Your task to perform on an android device: Clear the shopping cart on ebay. Add "bose soundsport free" to the cart on ebay Image 0: 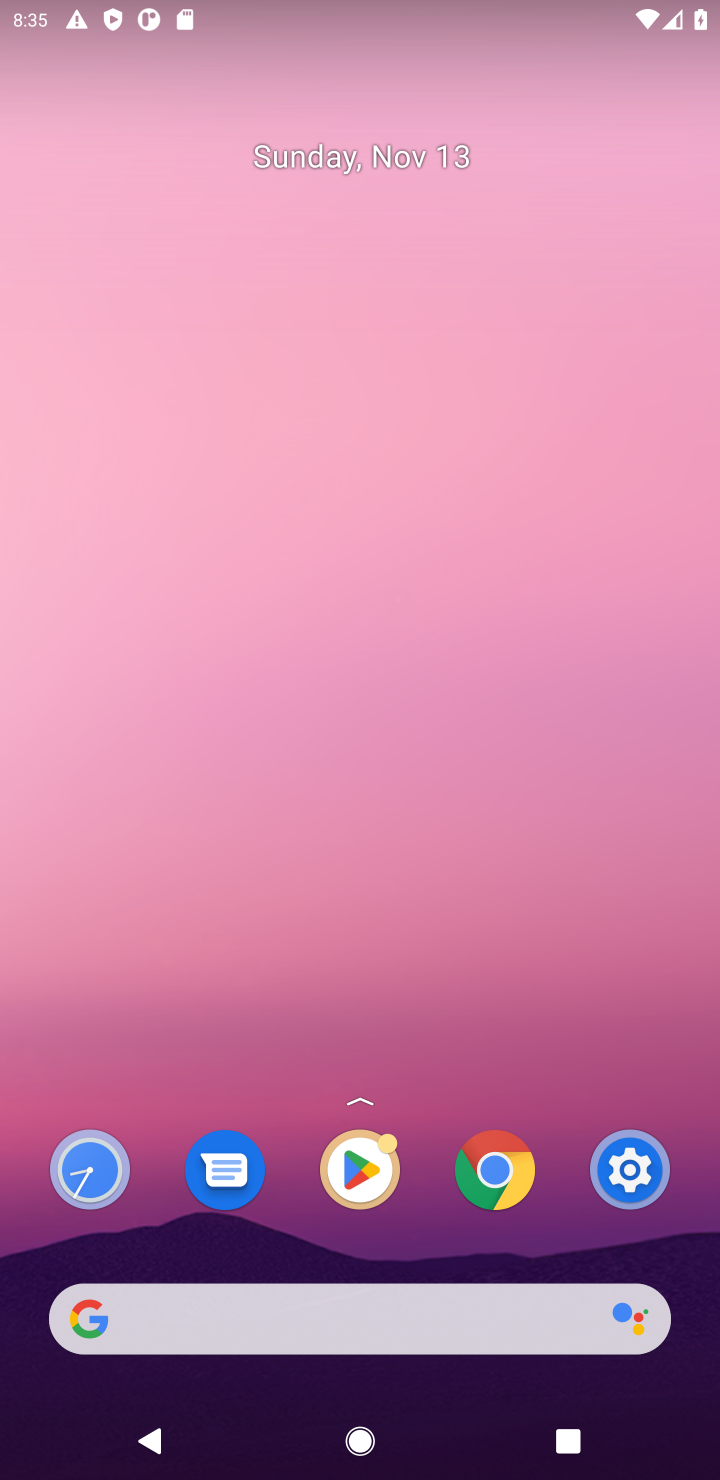
Step 0: drag from (267, 652) to (252, 412)
Your task to perform on an android device: Clear the shopping cart on ebay. Add "bose soundsport free" to the cart on ebay Image 1: 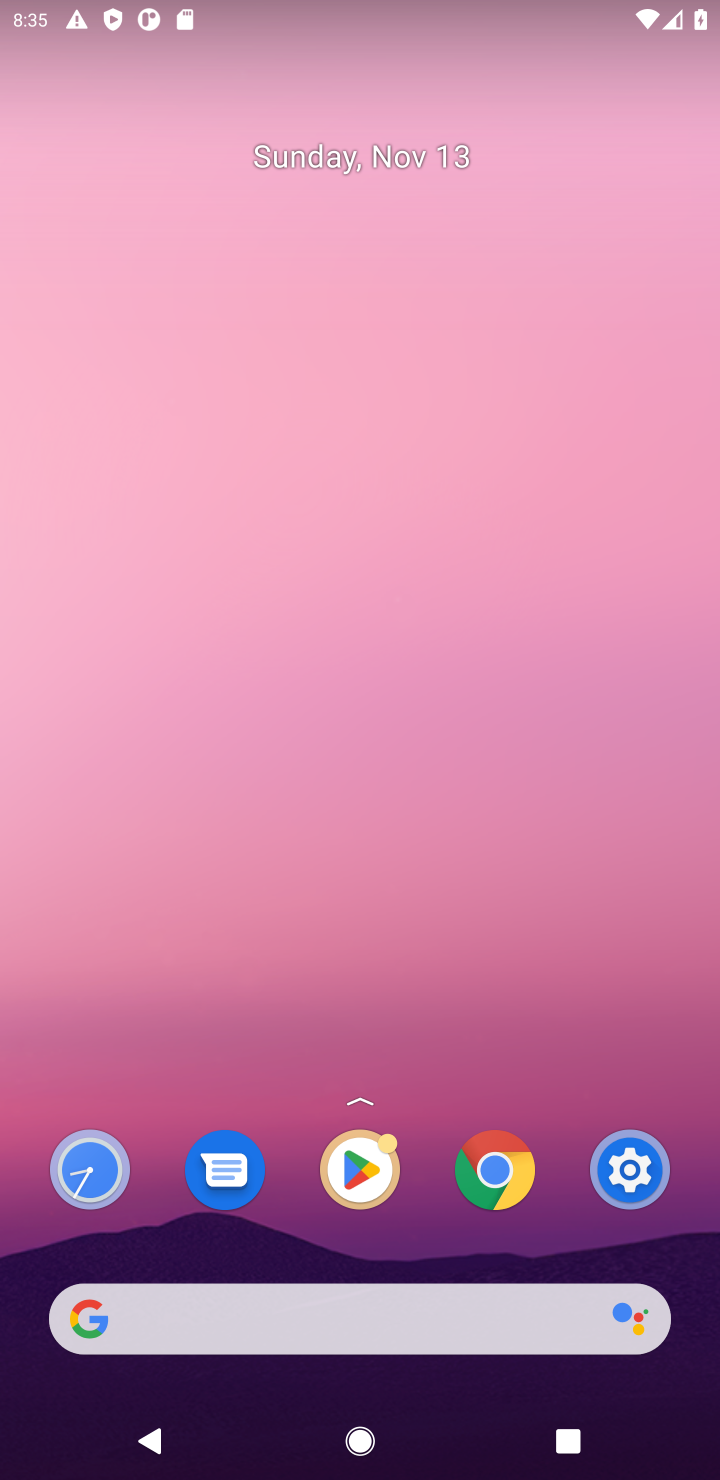
Step 1: drag from (424, 1085) to (471, 276)
Your task to perform on an android device: Clear the shopping cart on ebay. Add "bose soundsport free" to the cart on ebay Image 2: 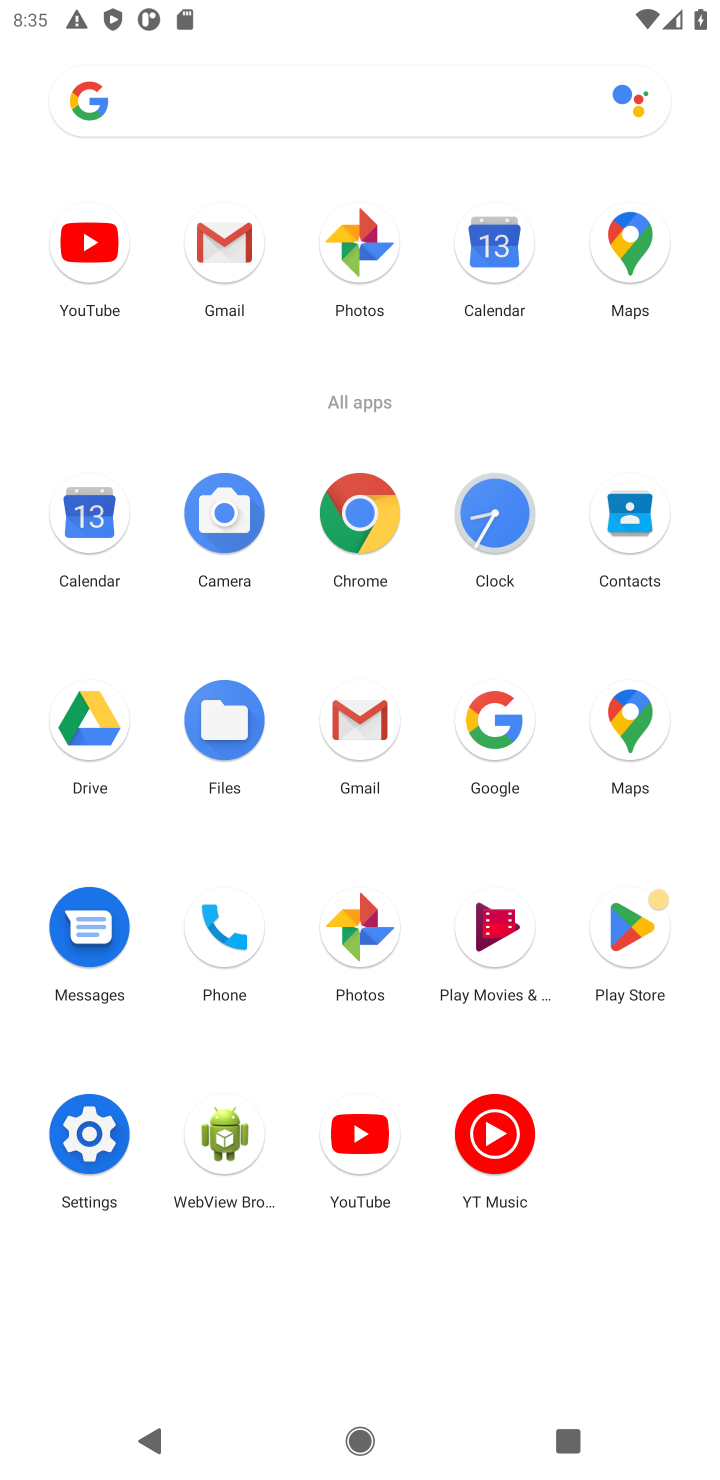
Step 2: click (374, 538)
Your task to perform on an android device: Clear the shopping cart on ebay. Add "bose soundsport free" to the cart on ebay Image 3: 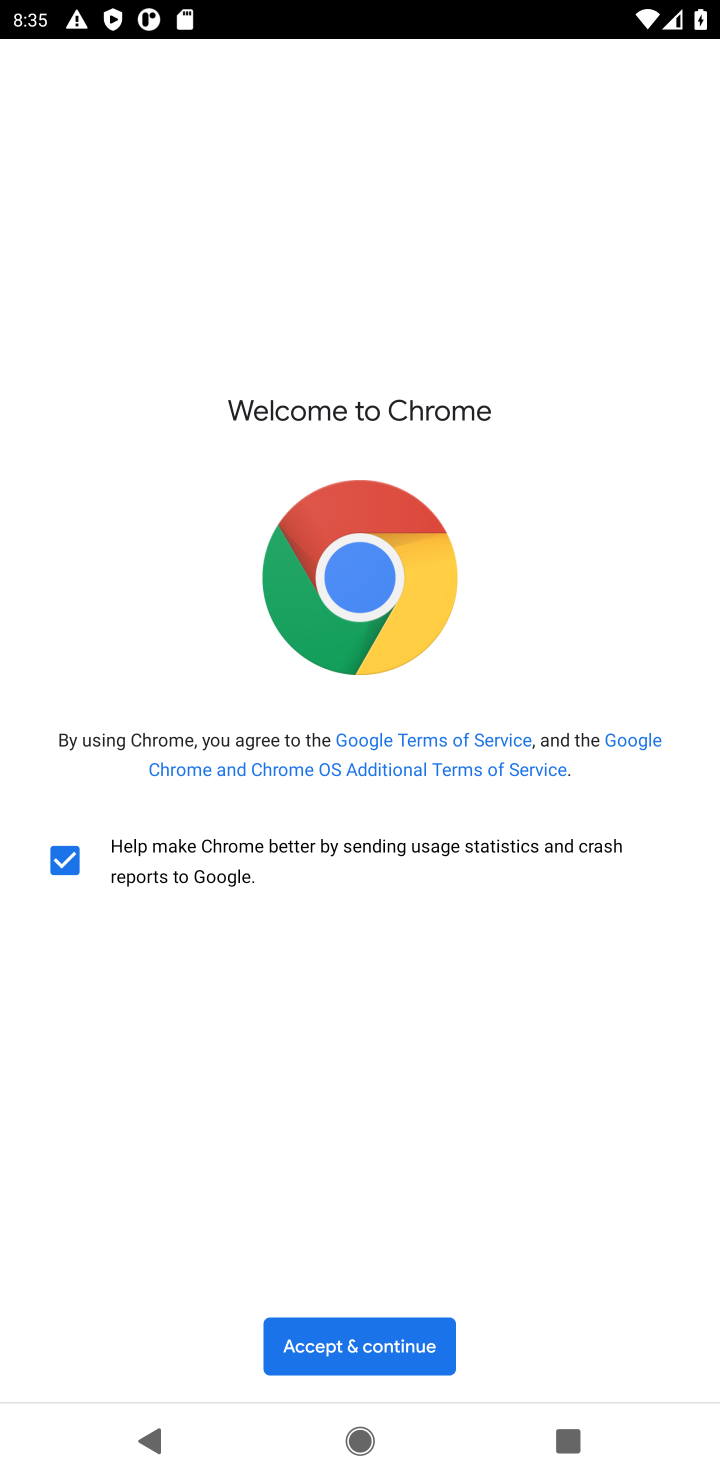
Step 3: click (373, 1342)
Your task to perform on an android device: Clear the shopping cart on ebay. Add "bose soundsport free" to the cart on ebay Image 4: 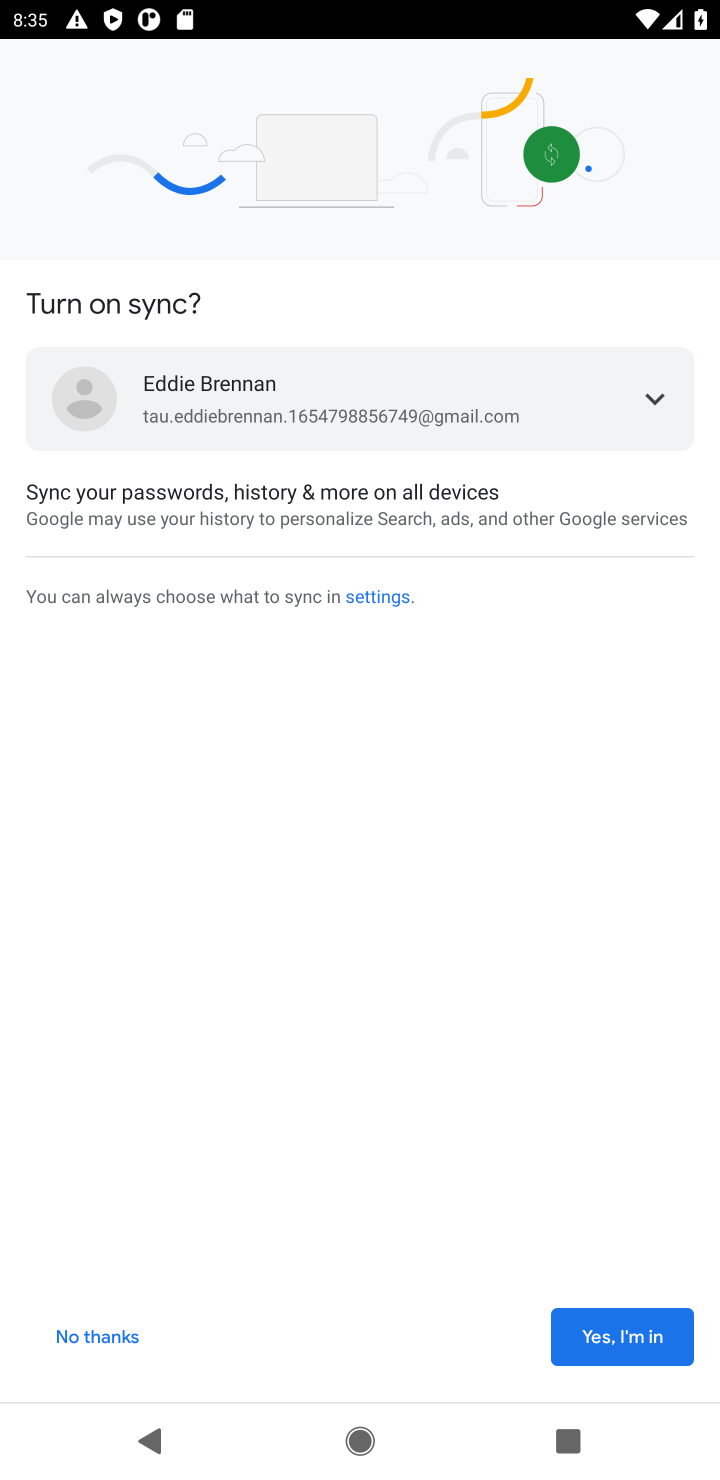
Step 4: click (612, 1321)
Your task to perform on an android device: Clear the shopping cart on ebay. Add "bose soundsport free" to the cart on ebay Image 5: 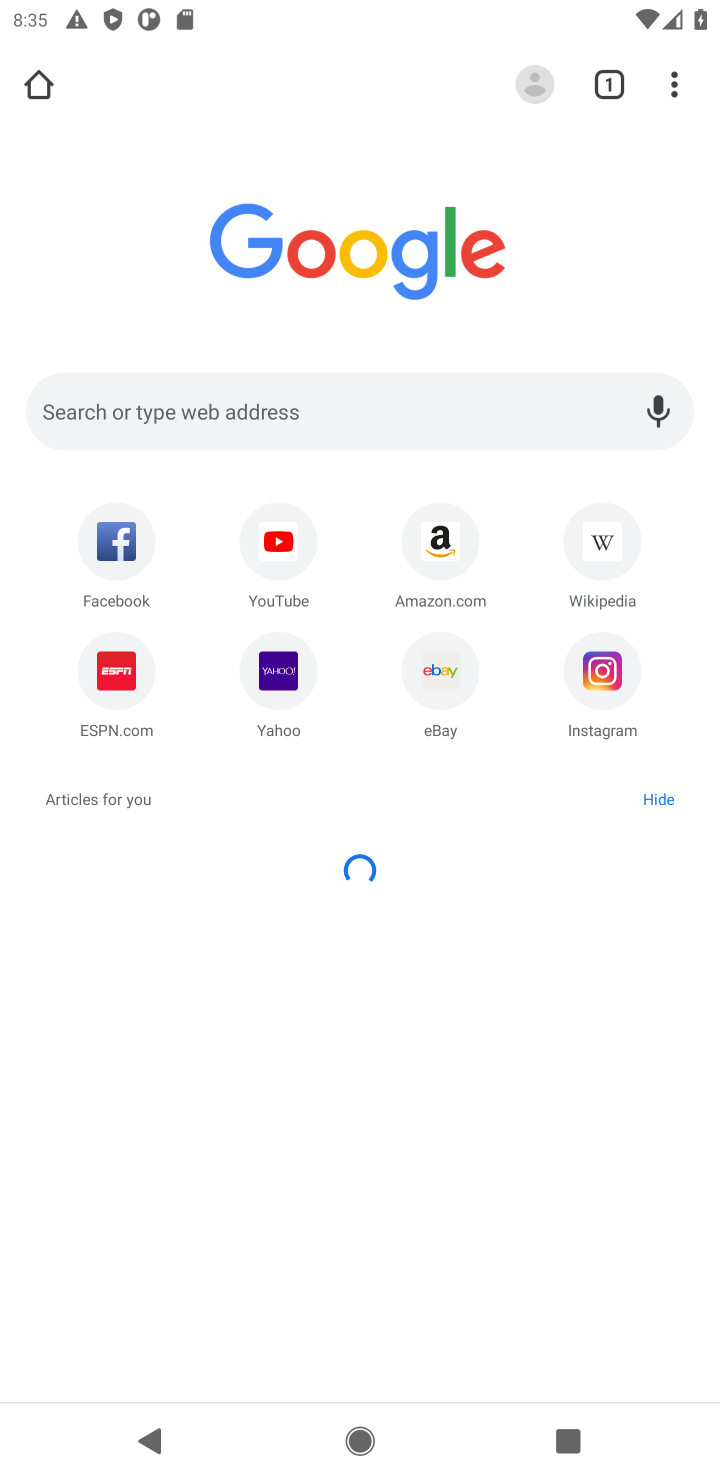
Step 5: click (268, 406)
Your task to perform on an android device: Clear the shopping cart on ebay. Add "bose soundsport free" to the cart on ebay Image 6: 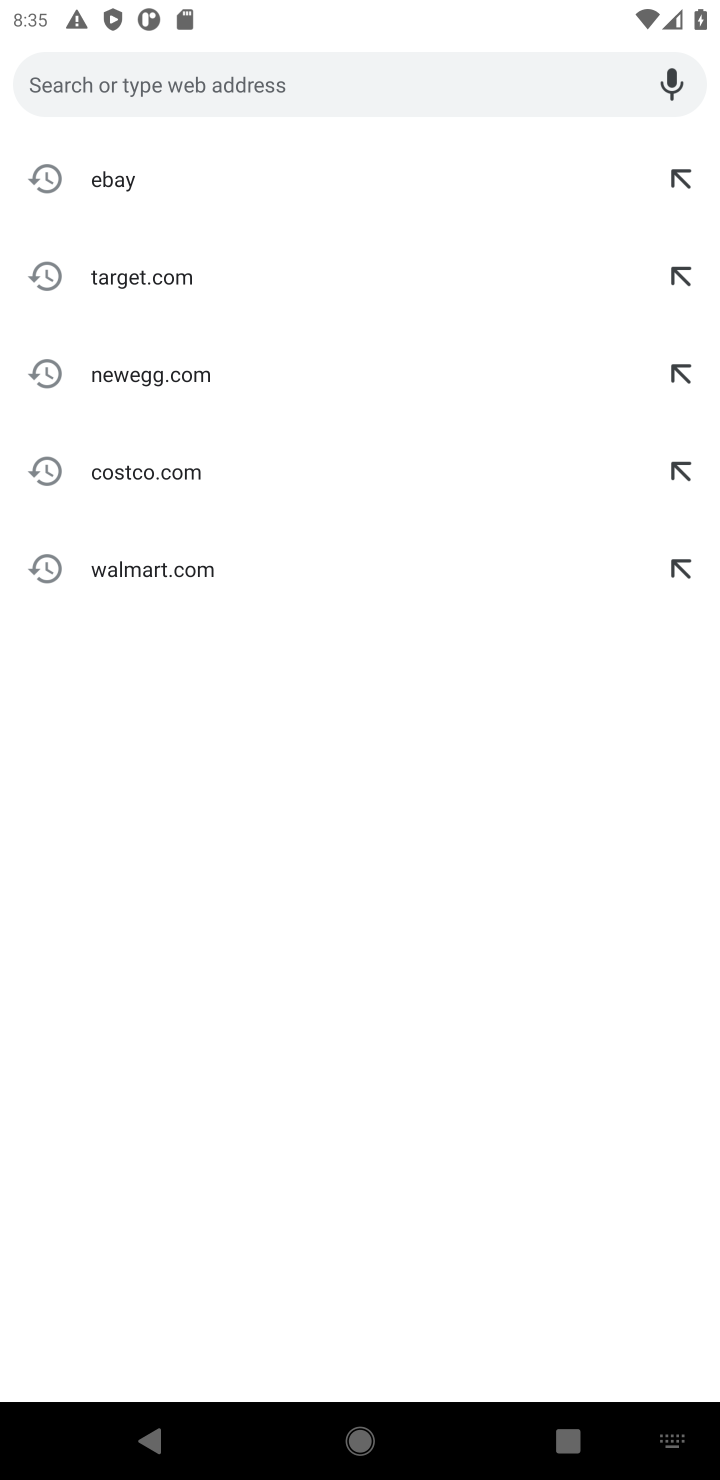
Step 6: type "ebay"
Your task to perform on an android device: Clear the shopping cart on ebay. Add "bose soundsport free" to the cart on ebay Image 7: 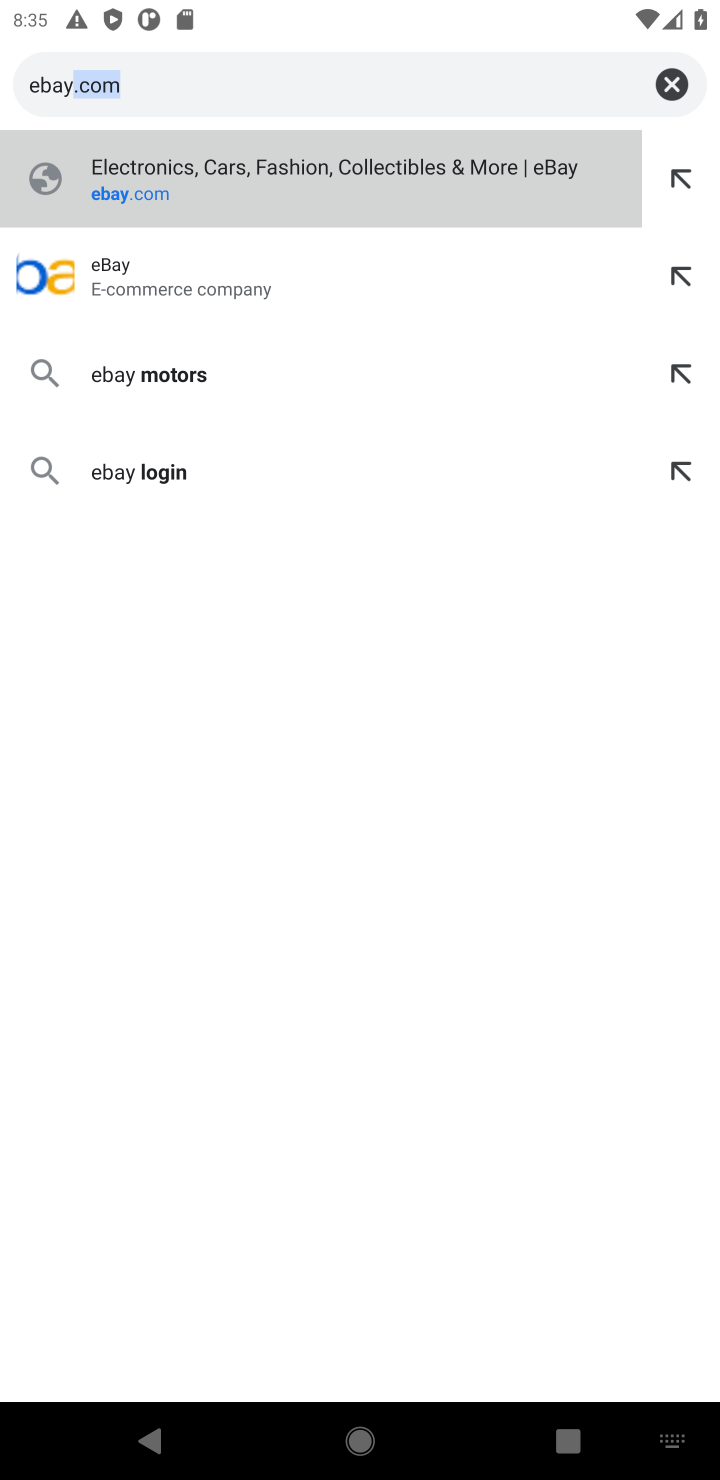
Step 7: press enter
Your task to perform on an android device: Clear the shopping cart on ebay. Add "bose soundsport free" to the cart on ebay Image 8: 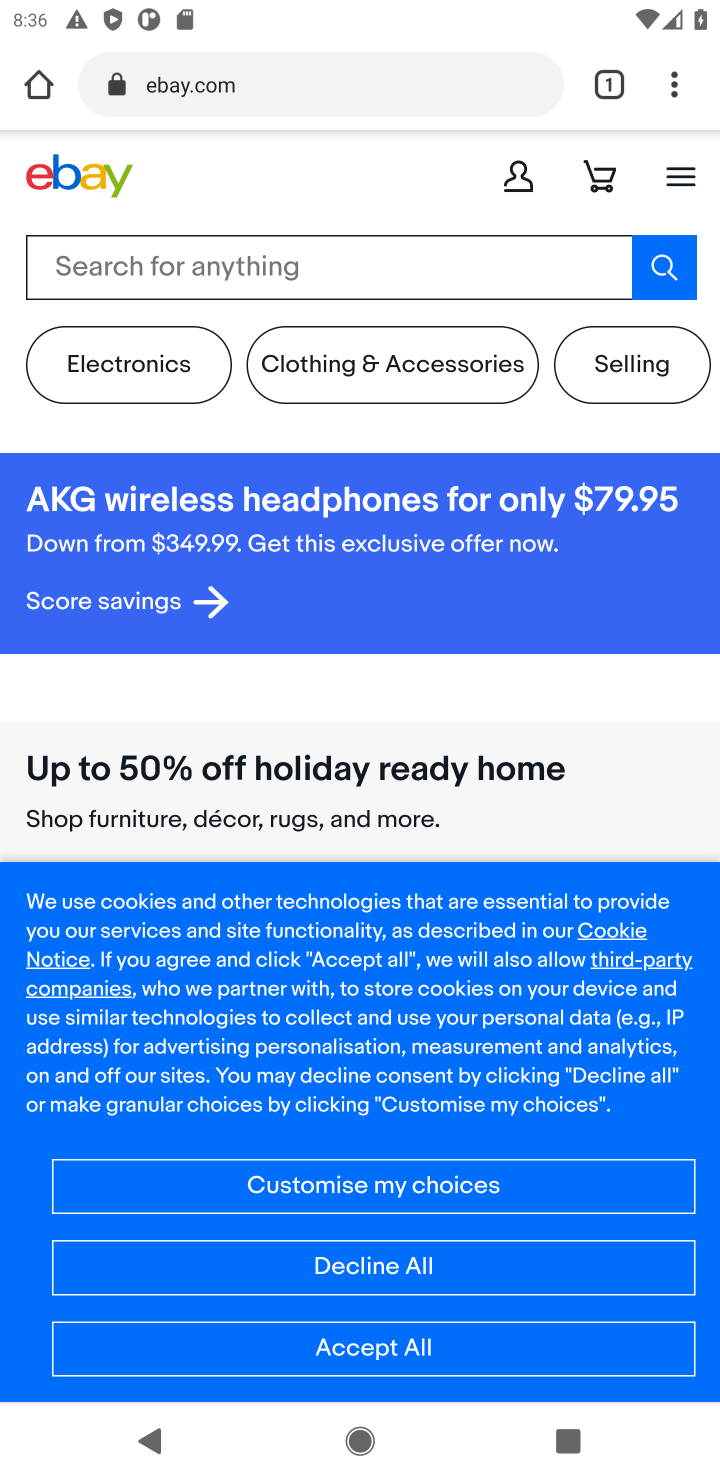
Step 8: click (158, 264)
Your task to perform on an android device: Clear the shopping cart on ebay. Add "bose soundsport free" to the cart on ebay Image 9: 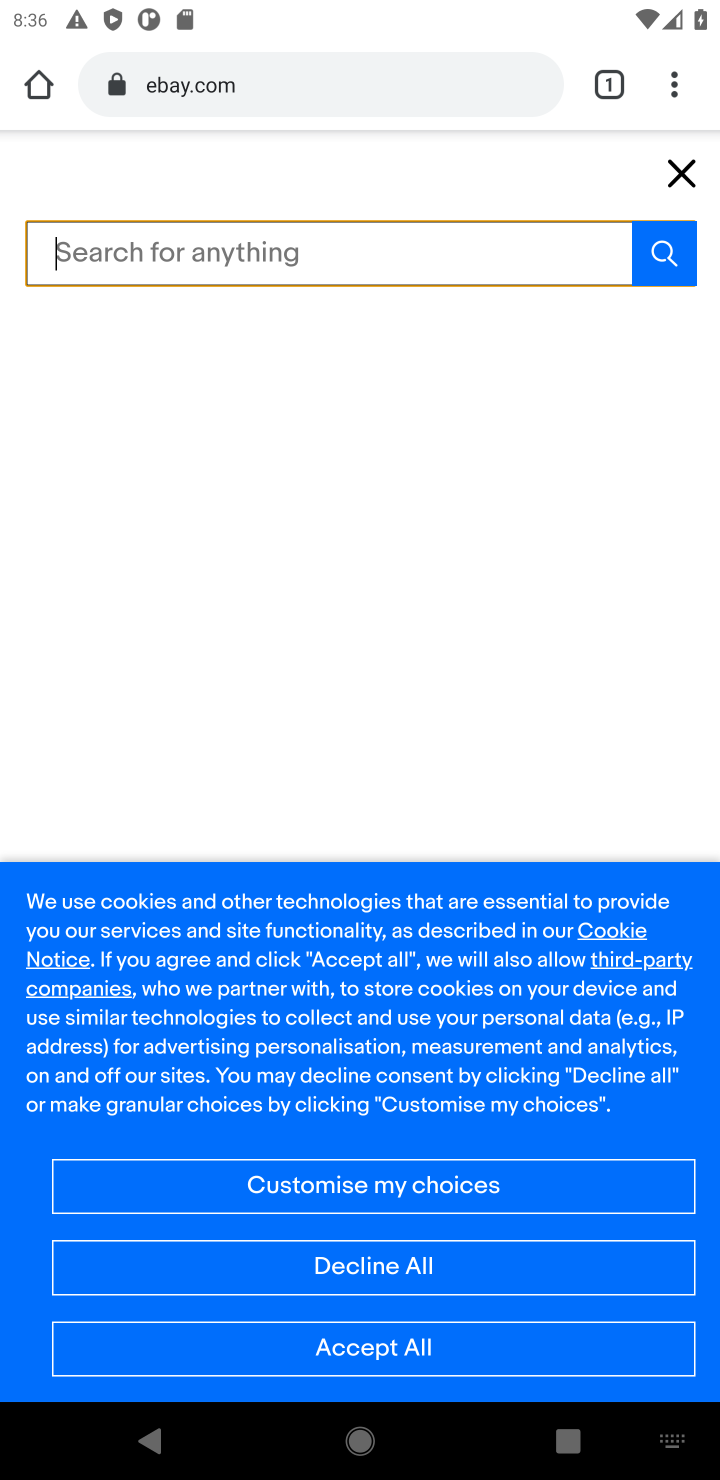
Step 9: press enter
Your task to perform on an android device: Clear the shopping cart on ebay. Add "bose soundsport free" to the cart on ebay Image 10: 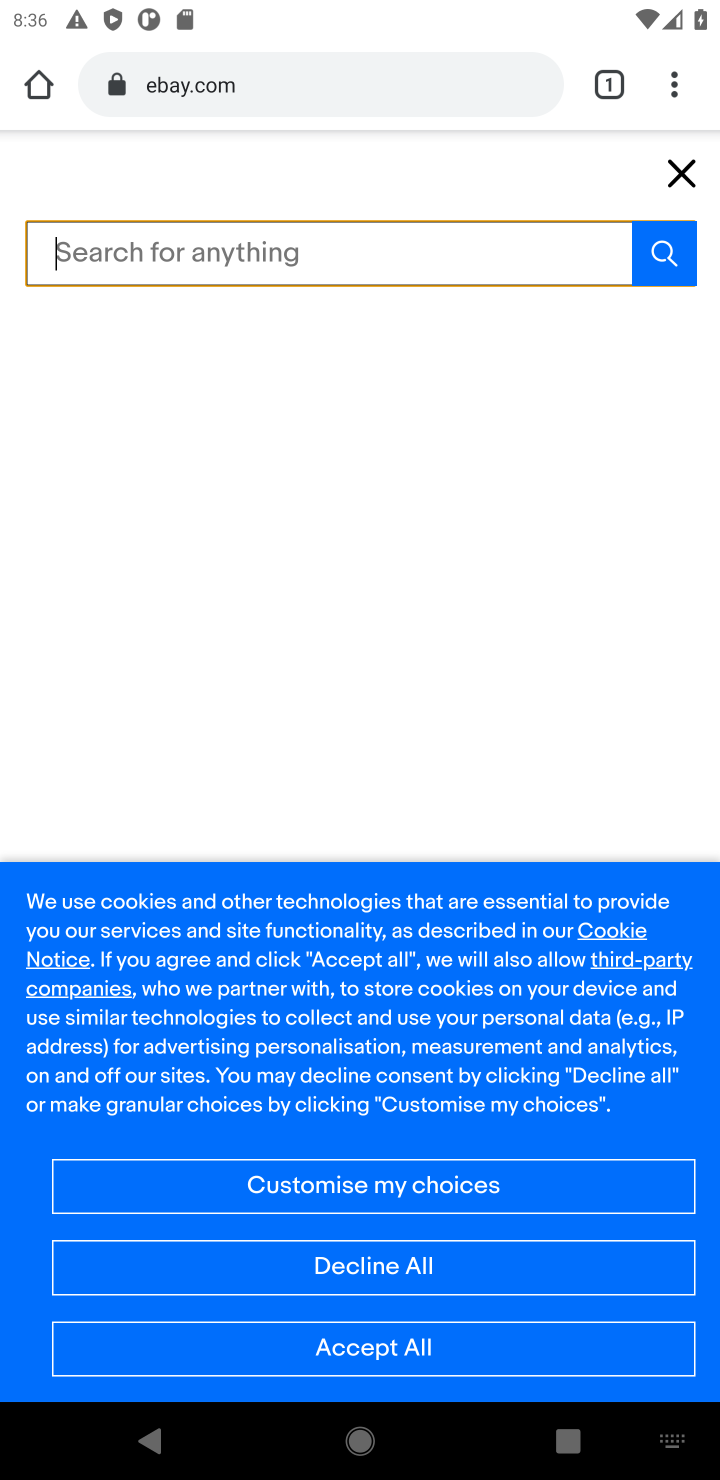
Step 10: type "bose soundsport free"
Your task to perform on an android device: Clear the shopping cart on ebay. Add "bose soundsport free" to the cart on ebay Image 11: 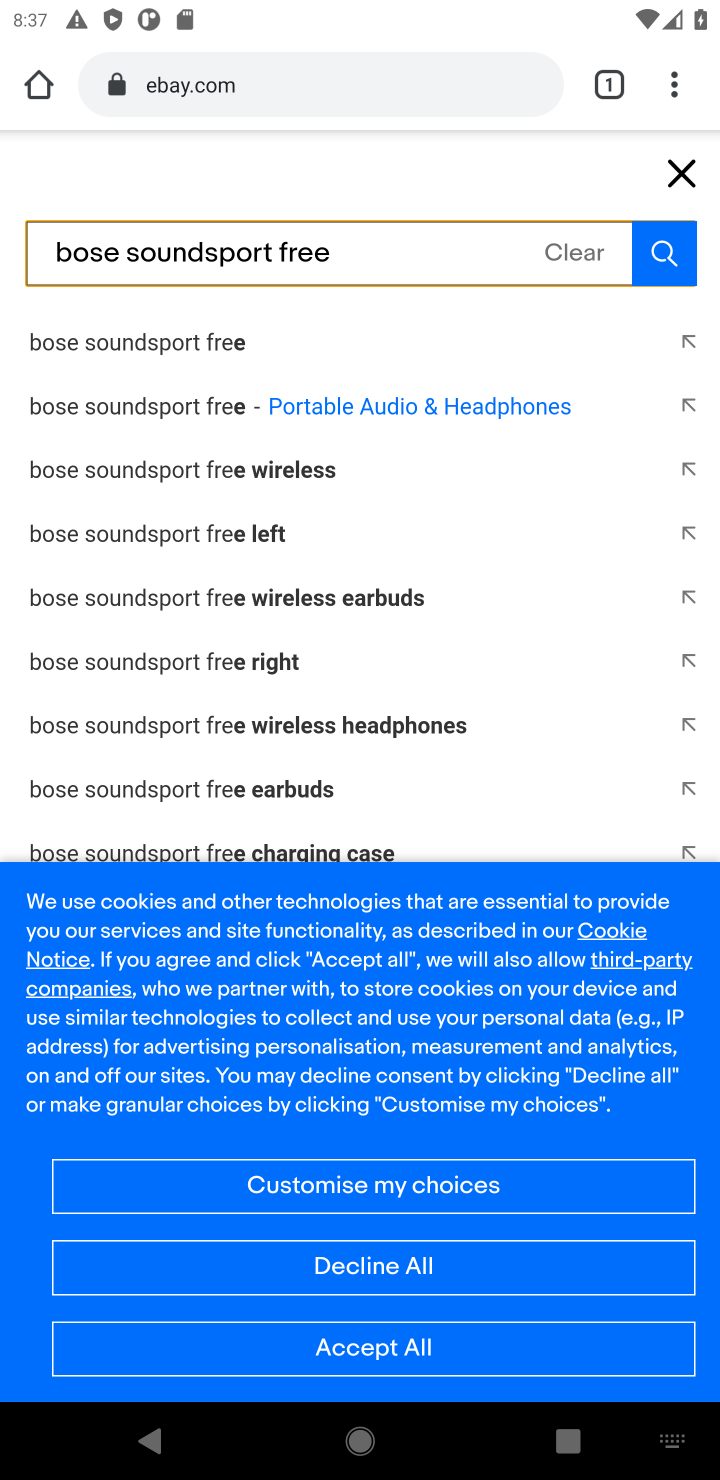
Step 11: press enter
Your task to perform on an android device: Clear the shopping cart on ebay. Add "bose soundsport free" to the cart on ebay Image 12: 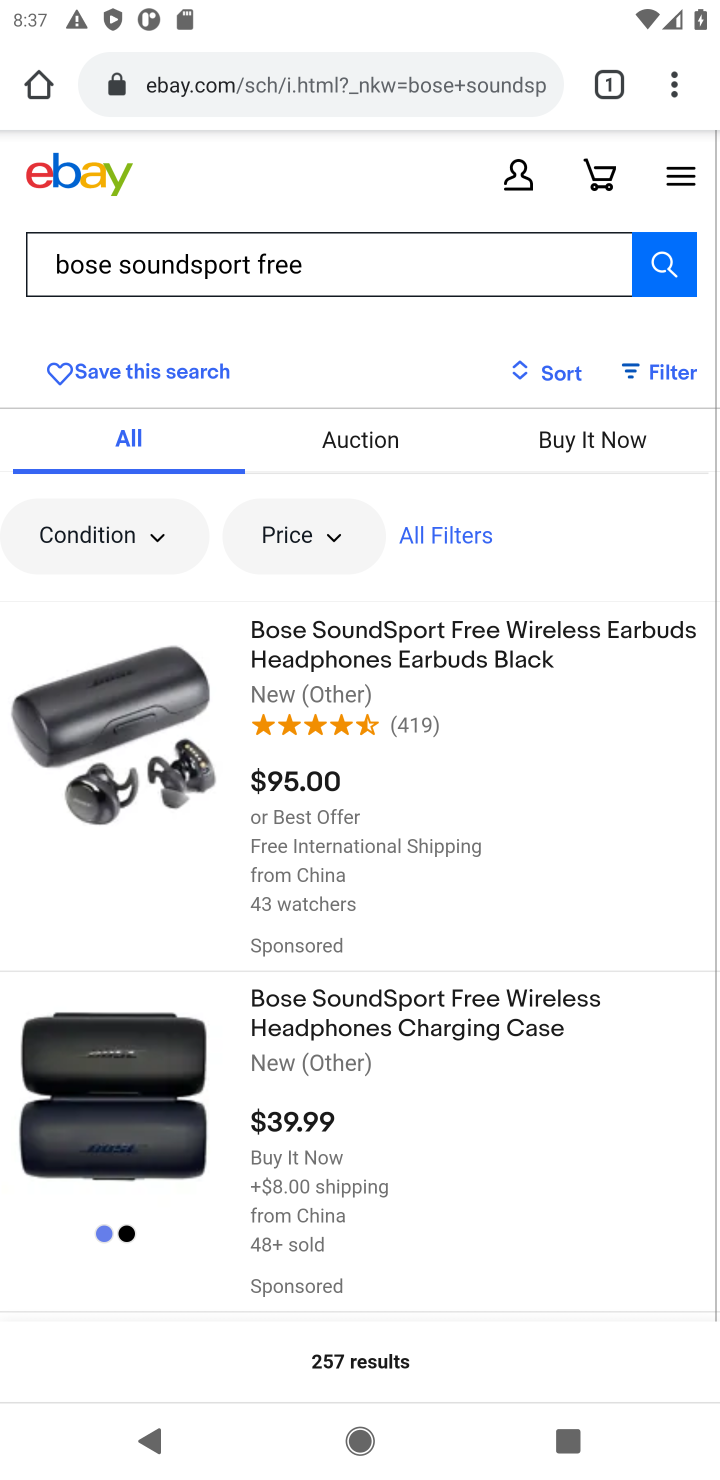
Step 12: click (326, 662)
Your task to perform on an android device: Clear the shopping cart on ebay. Add "bose soundsport free" to the cart on ebay Image 13: 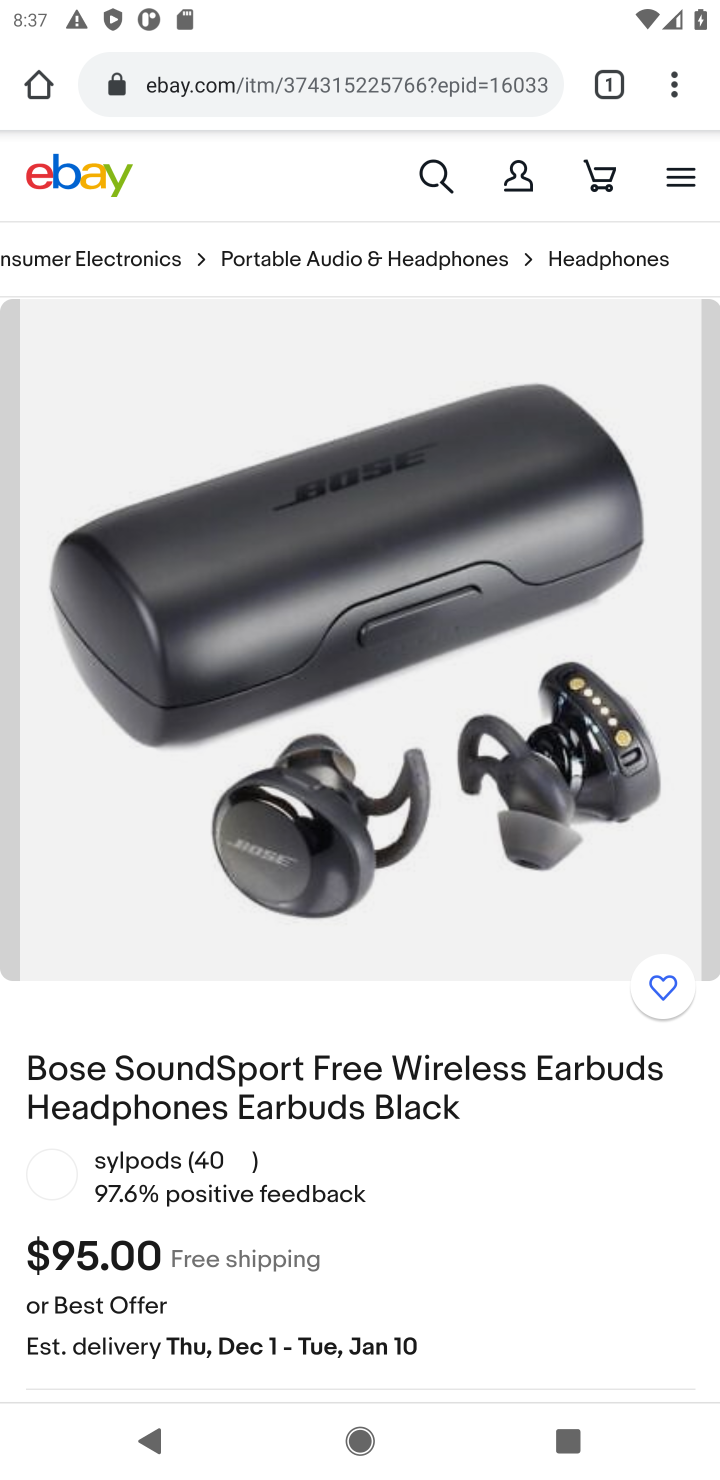
Step 13: click (496, 614)
Your task to perform on an android device: Clear the shopping cart on ebay. Add "bose soundsport free" to the cart on ebay Image 14: 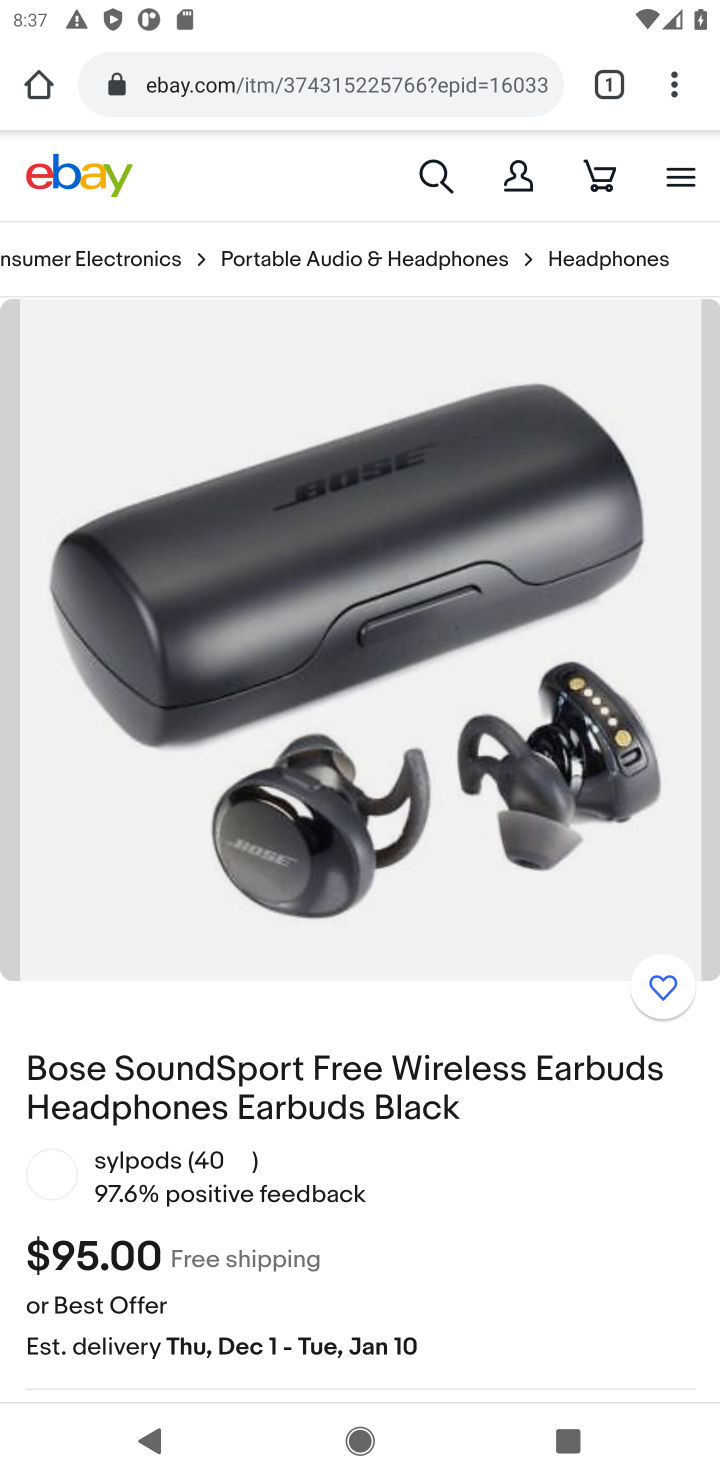
Step 14: click (367, 521)
Your task to perform on an android device: Clear the shopping cart on ebay. Add "bose soundsport free" to the cart on ebay Image 15: 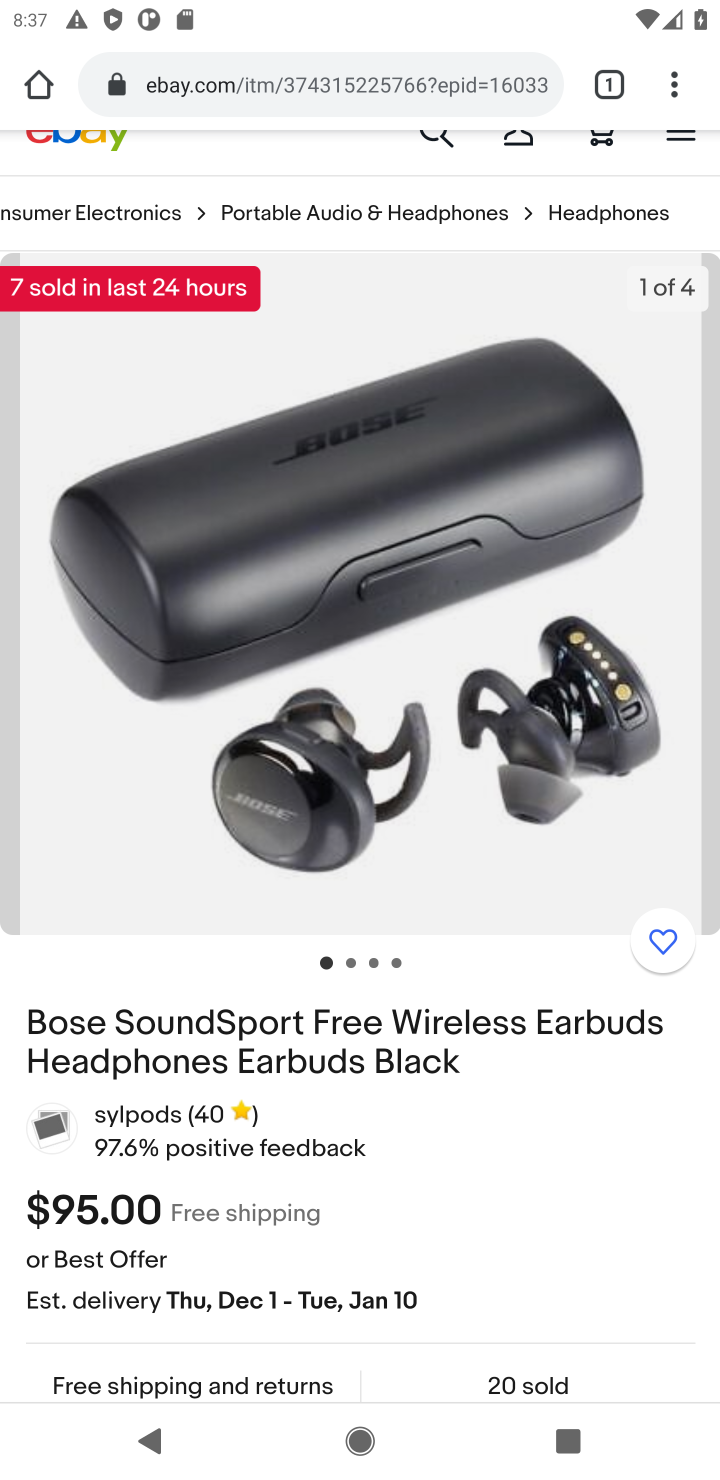
Step 15: drag from (412, 827) to (485, 555)
Your task to perform on an android device: Clear the shopping cart on ebay. Add "bose soundsport free" to the cart on ebay Image 16: 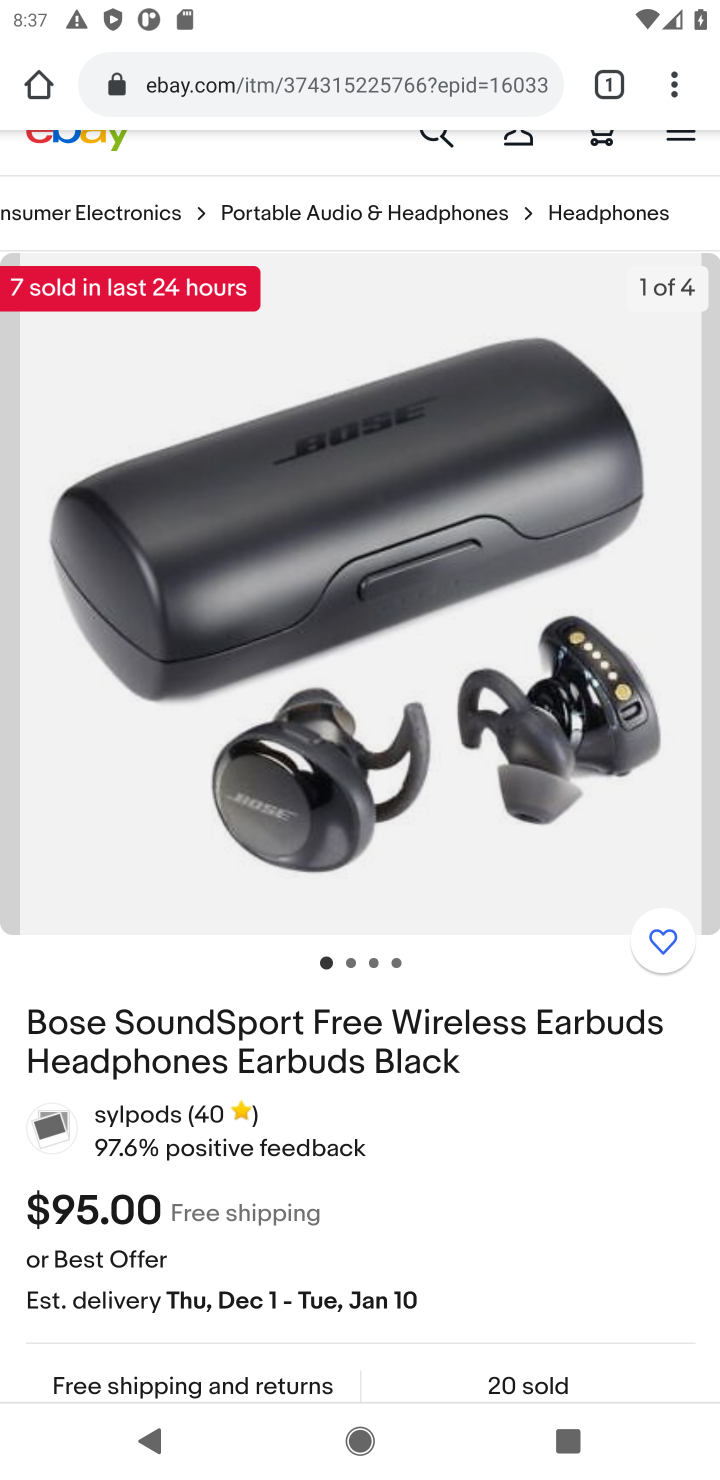
Step 16: drag from (348, 1106) to (449, 497)
Your task to perform on an android device: Clear the shopping cart on ebay. Add "bose soundsport free" to the cart on ebay Image 17: 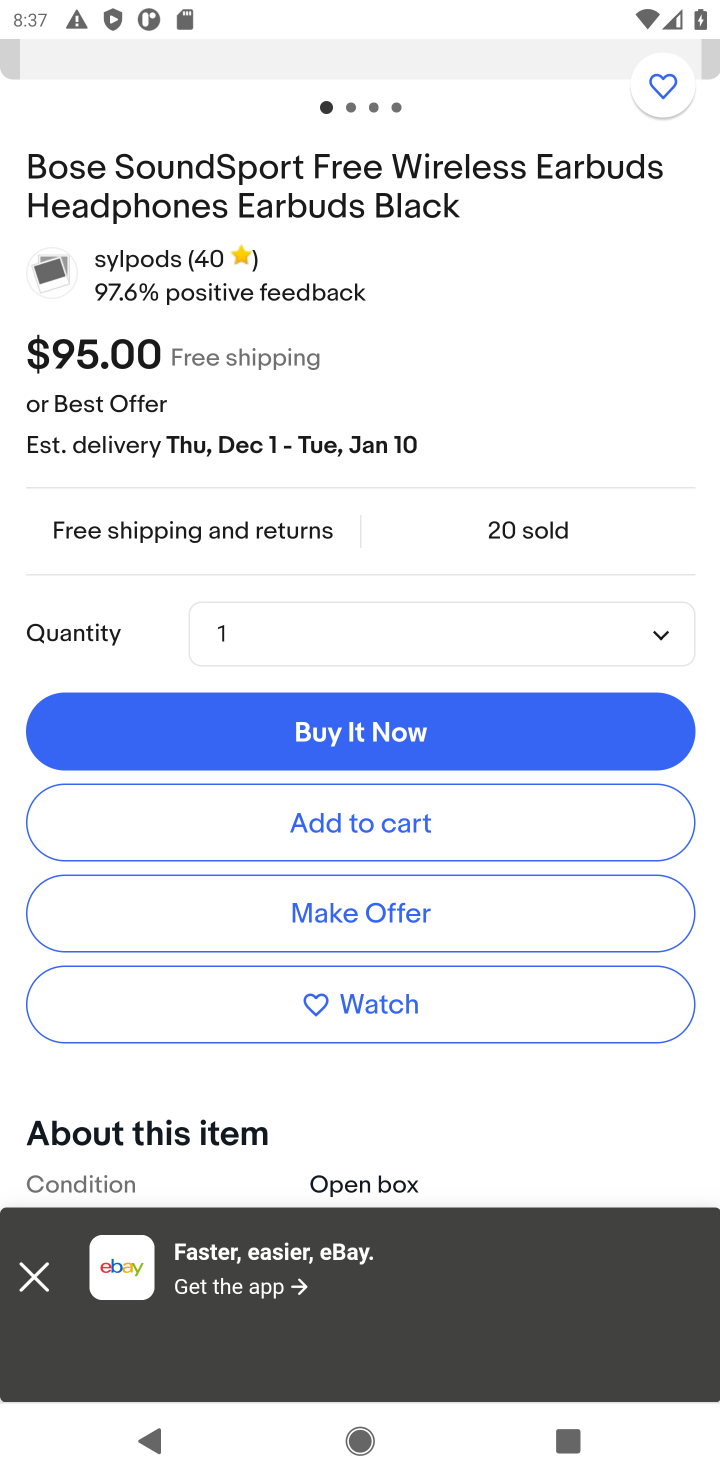
Step 17: drag from (341, 1117) to (437, 543)
Your task to perform on an android device: Clear the shopping cart on ebay. Add "bose soundsport free" to the cart on ebay Image 18: 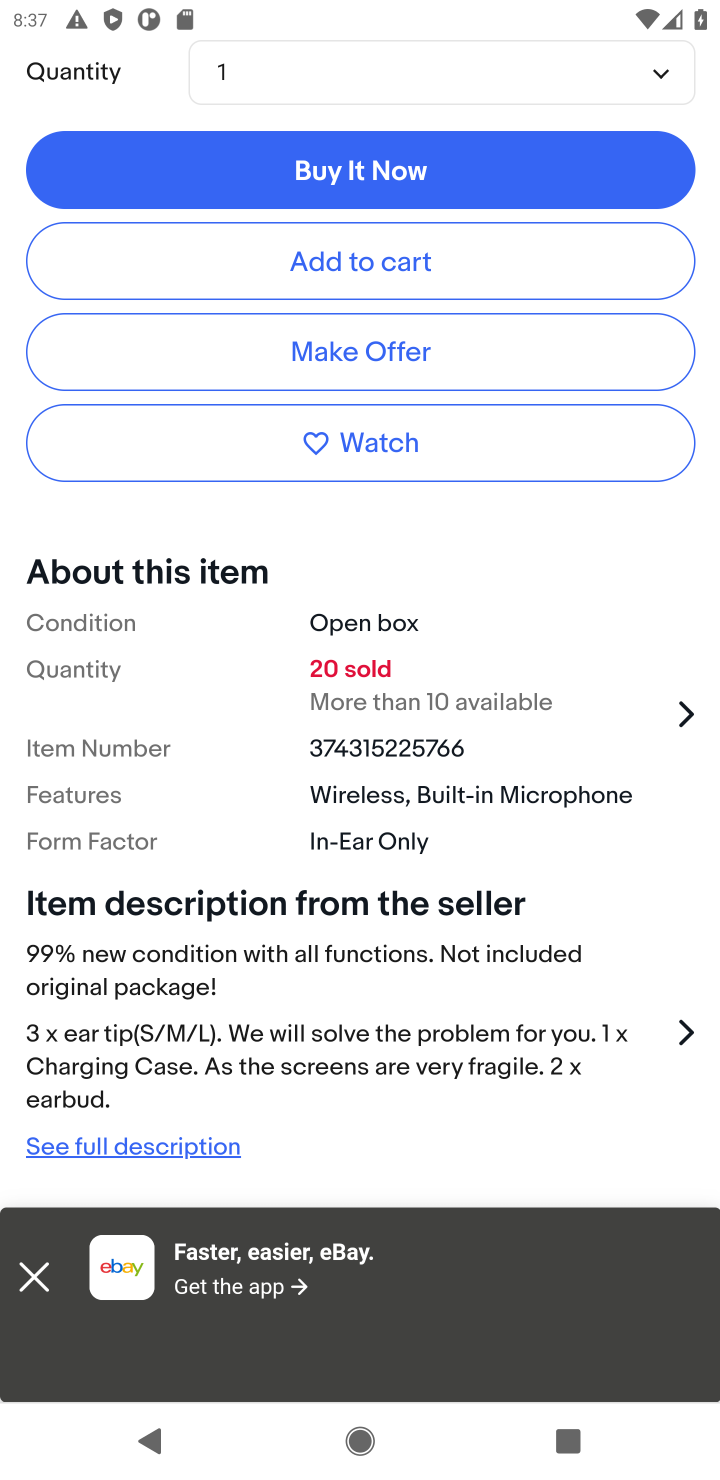
Step 18: click (431, 268)
Your task to perform on an android device: Clear the shopping cart on ebay. Add "bose soundsport free" to the cart on ebay Image 19: 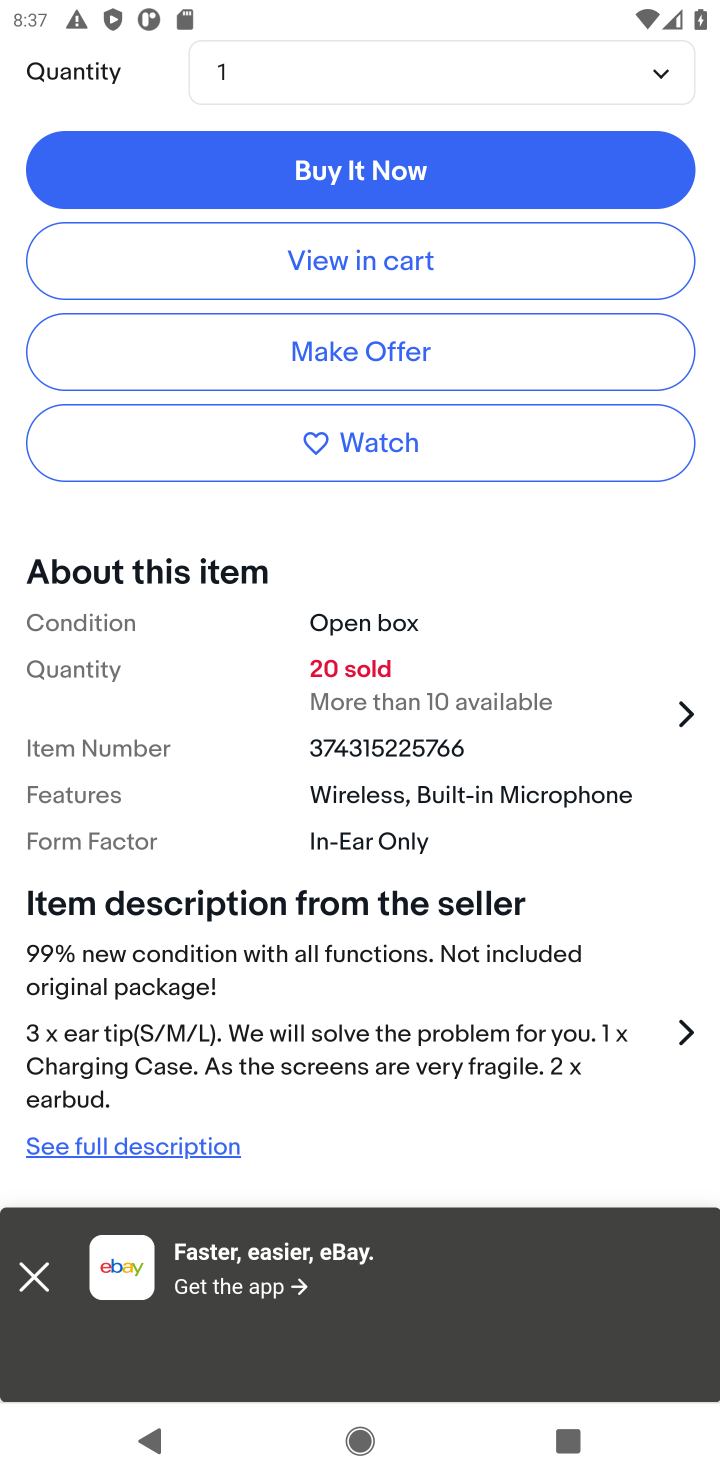
Step 19: click (414, 268)
Your task to perform on an android device: Clear the shopping cart on ebay. Add "bose soundsport free" to the cart on ebay Image 20: 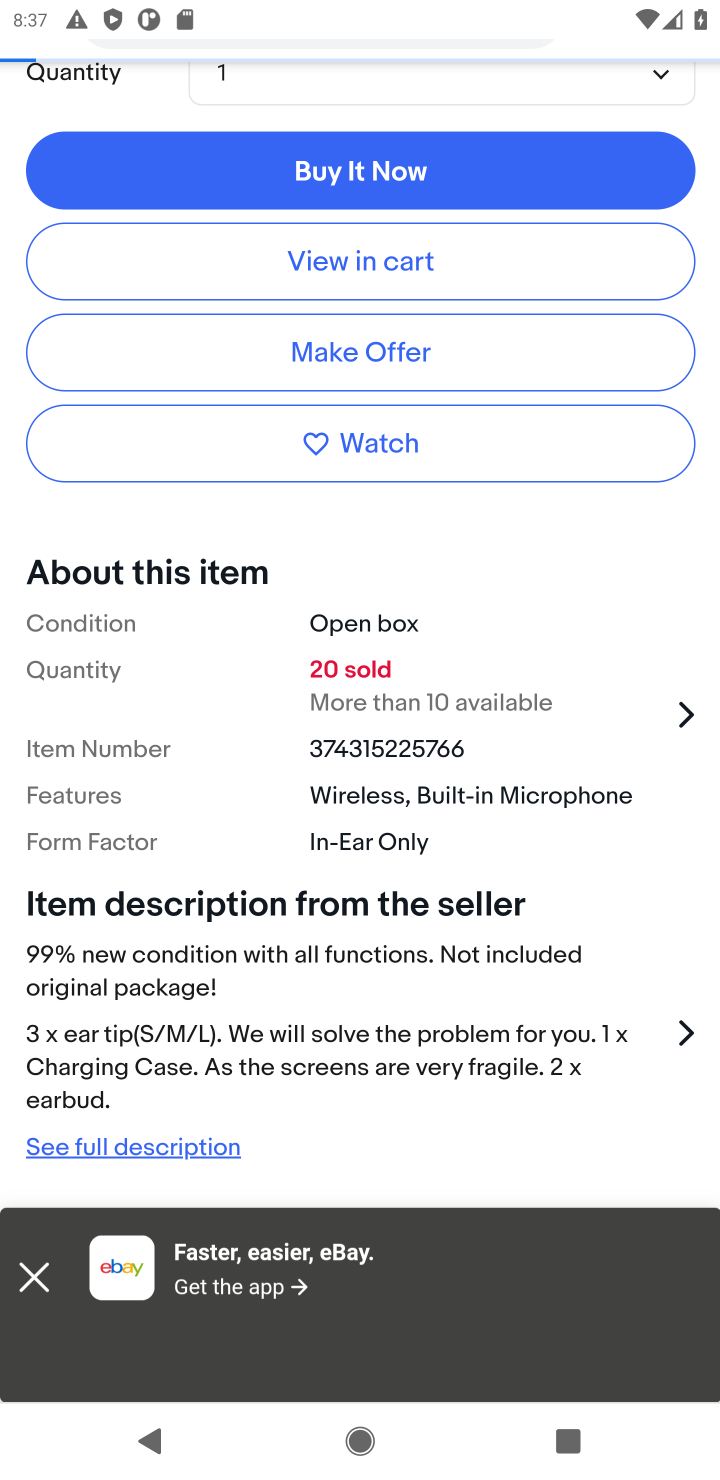
Step 20: task complete